Your task to perform on an android device: turn off wifi Image 0: 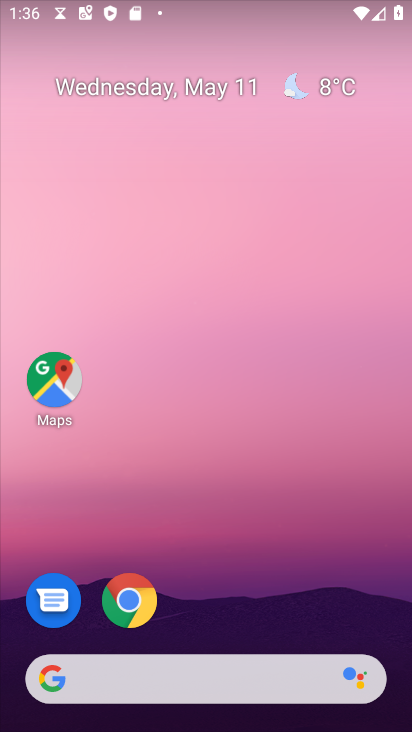
Step 0: drag from (262, 198) to (260, 28)
Your task to perform on an android device: turn off wifi Image 1: 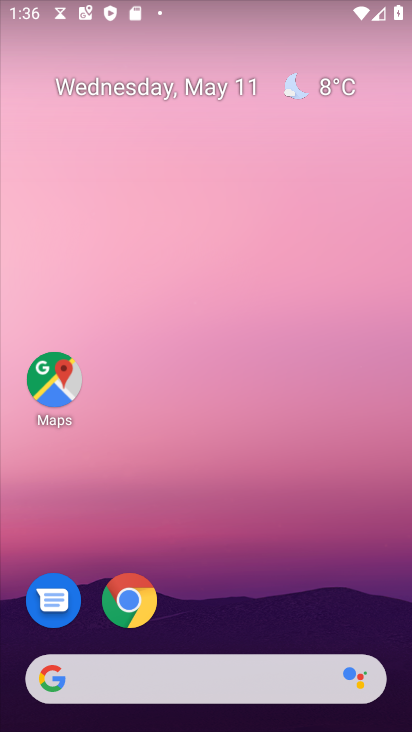
Step 1: drag from (269, 540) to (242, 101)
Your task to perform on an android device: turn off wifi Image 2: 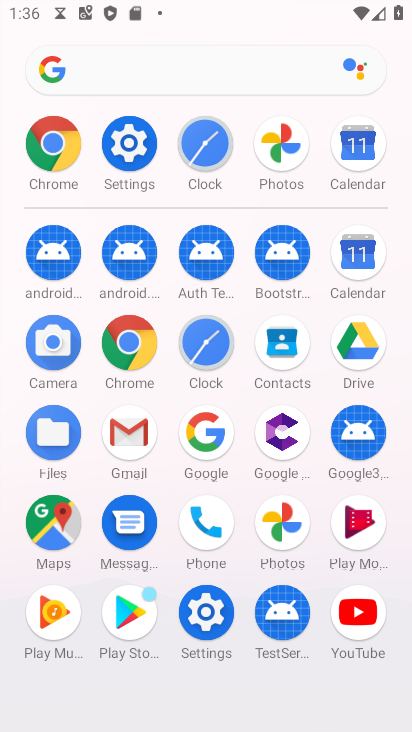
Step 2: click (129, 127)
Your task to perform on an android device: turn off wifi Image 3: 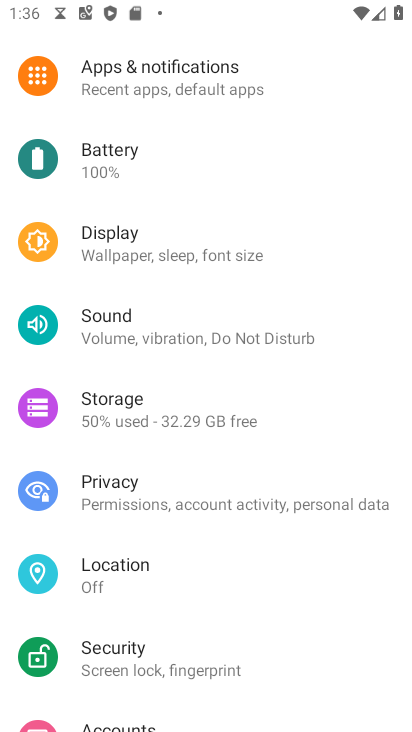
Step 3: drag from (233, 132) to (206, 674)
Your task to perform on an android device: turn off wifi Image 4: 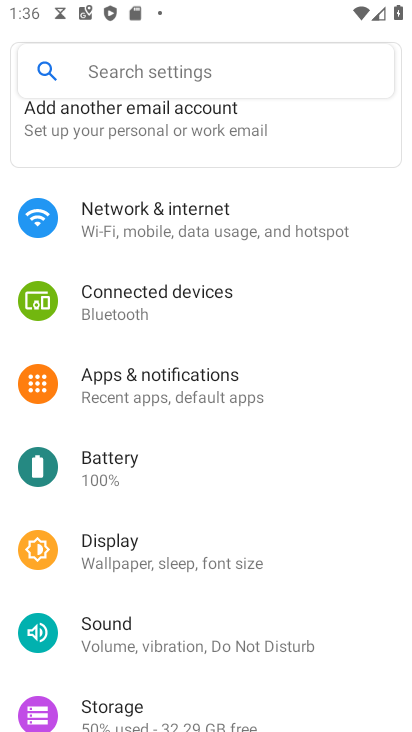
Step 4: click (177, 226)
Your task to perform on an android device: turn off wifi Image 5: 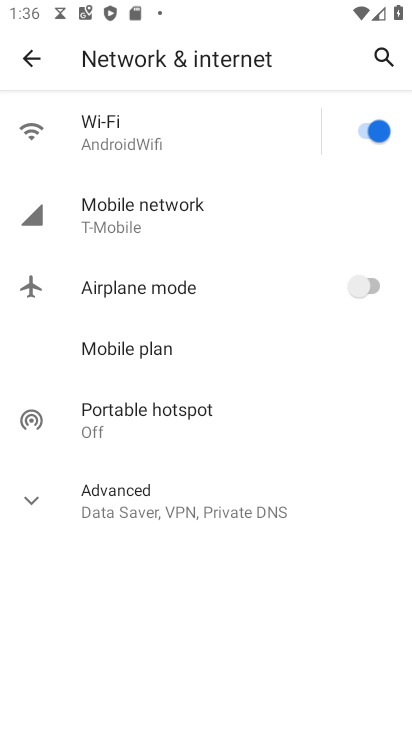
Step 5: click (383, 128)
Your task to perform on an android device: turn off wifi Image 6: 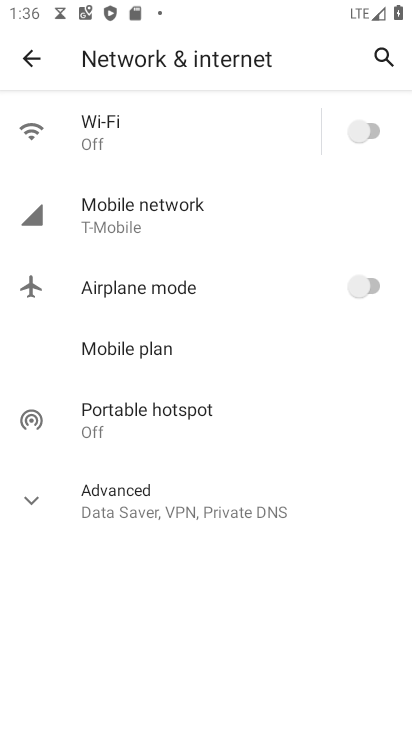
Step 6: task complete